Your task to perform on an android device: Show me recent news Image 0: 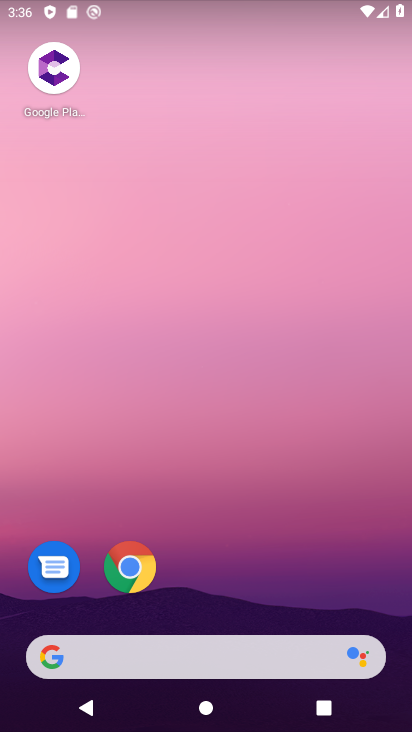
Step 0: drag from (218, 639) to (159, 190)
Your task to perform on an android device: Show me recent news Image 1: 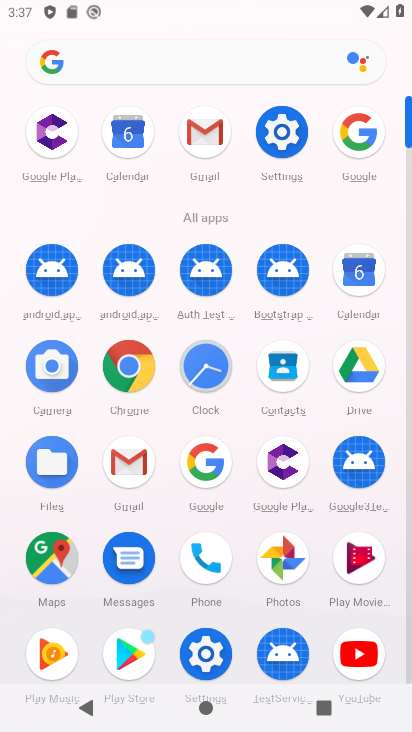
Step 1: click (350, 154)
Your task to perform on an android device: Show me recent news Image 2: 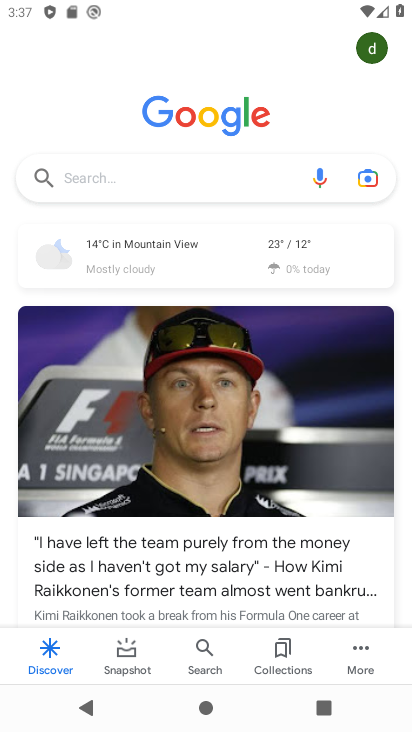
Step 2: task complete